Your task to perform on an android device: check storage Image 0: 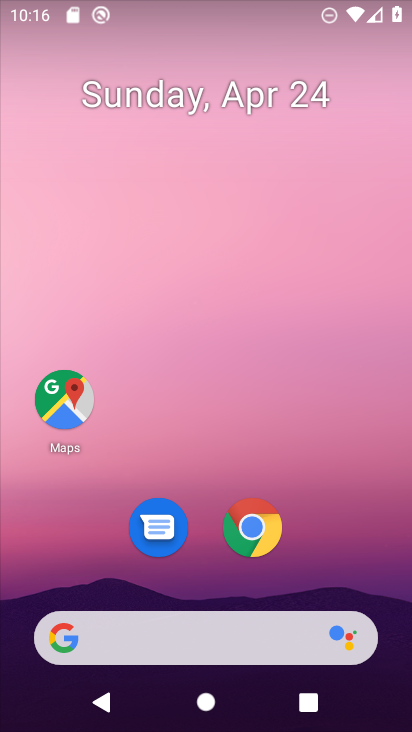
Step 0: drag from (390, 626) to (180, 42)
Your task to perform on an android device: check storage Image 1: 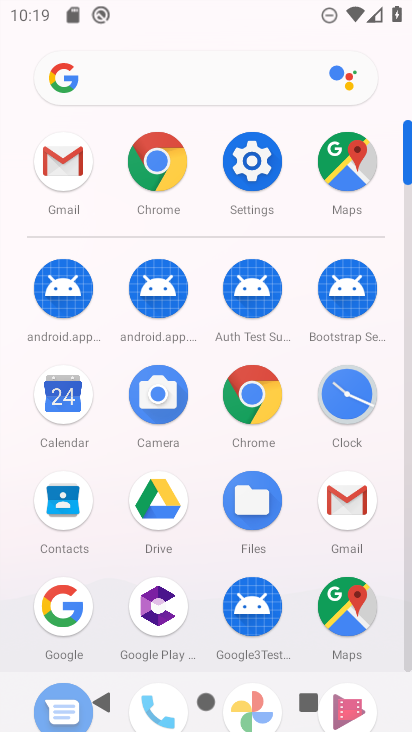
Step 1: click (264, 168)
Your task to perform on an android device: check storage Image 2: 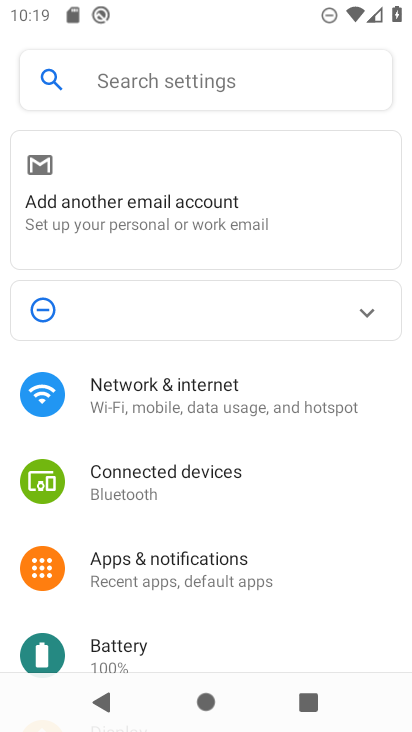
Step 2: drag from (131, 618) to (143, 37)
Your task to perform on an android device: check storage Image 3: 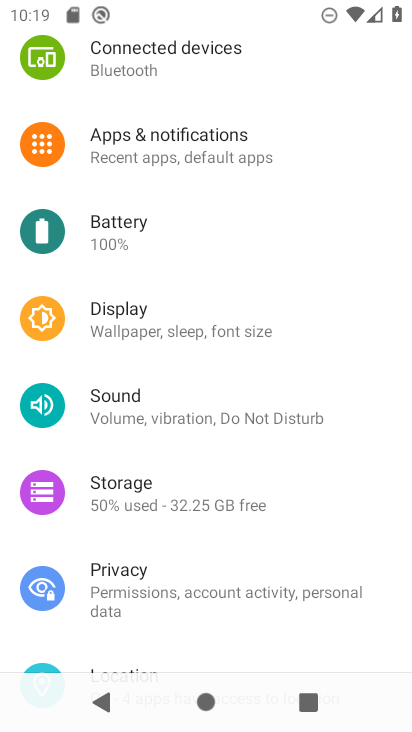
Step 3: click (145, 489)
Your task to perform on an android device: check storage Image 4: 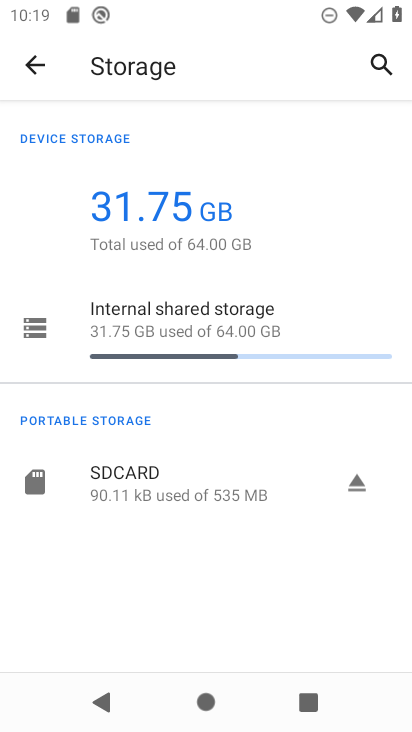
Step 4: click (130, 223)
Your task to perform on an android device: check storage Image 5: 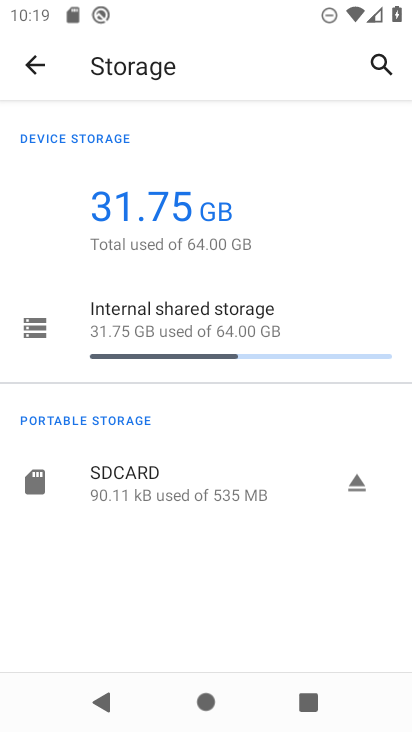
Step 5: click (161, 322)
Your task to perform on an android device: check storage Image 6: 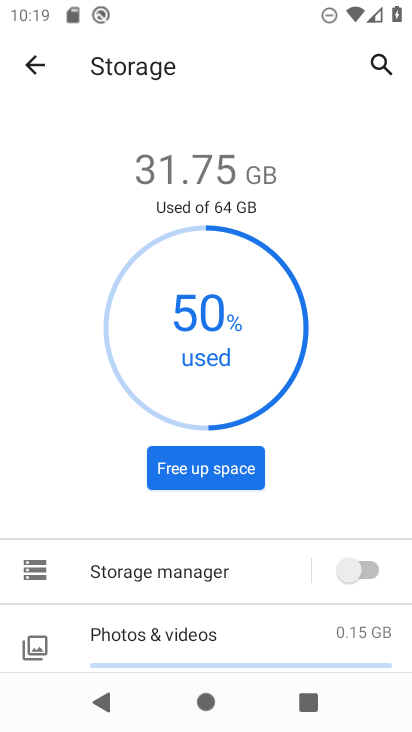
Step 6: task complete